Your task to perform on an android device: check battery use Image 0: 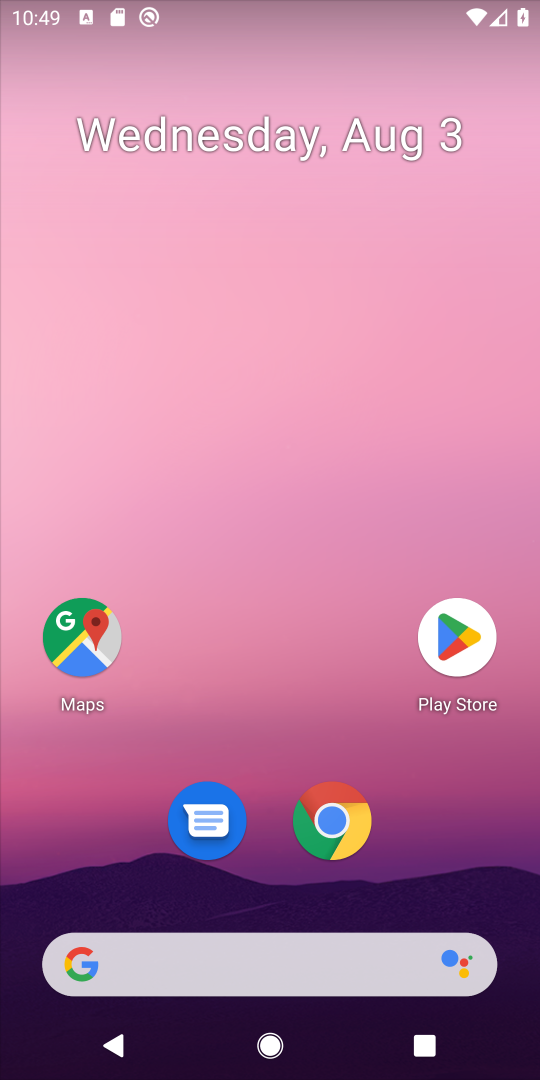
Step 0: drag from (365, 837) to (421, 12)
Your task to perform on an android device: check battery use Image 1: 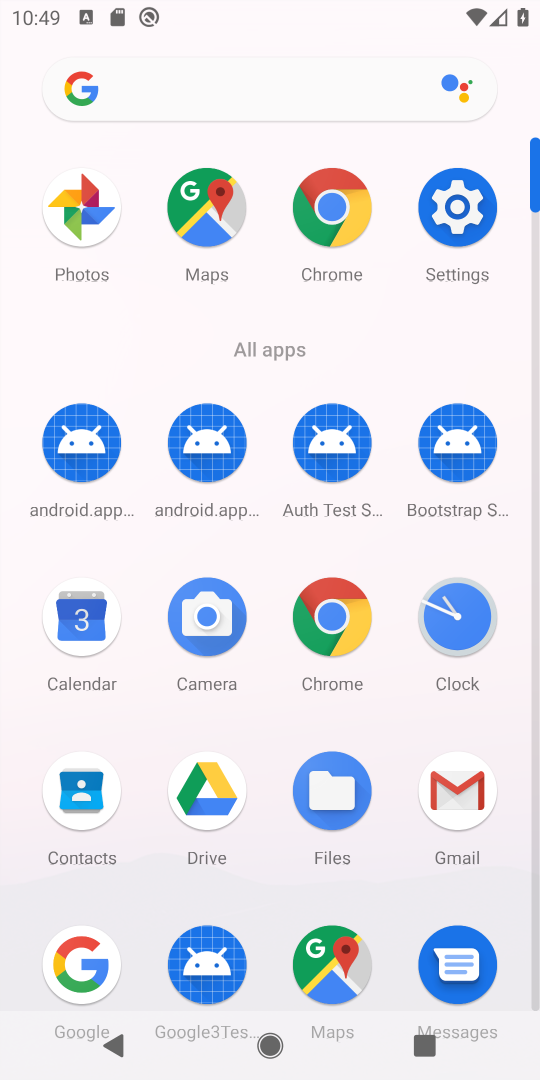
Step 1: click (481, 181)
Your task to perform on an android device: check battery use Image 2: 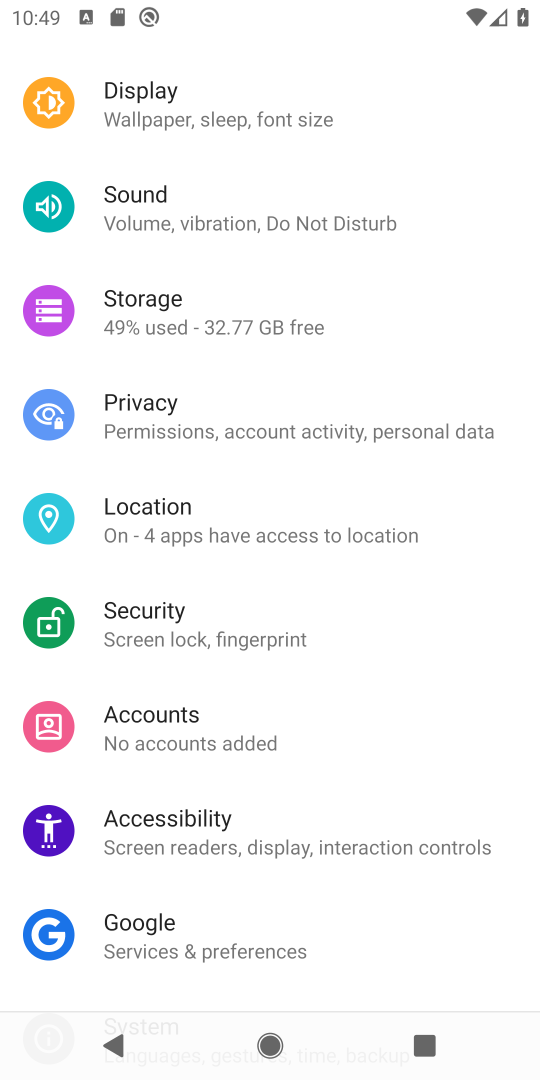
Step 2: drag from (188, 248) to (243, 979)
Your task to perform on an android device: check battery use Image 3: 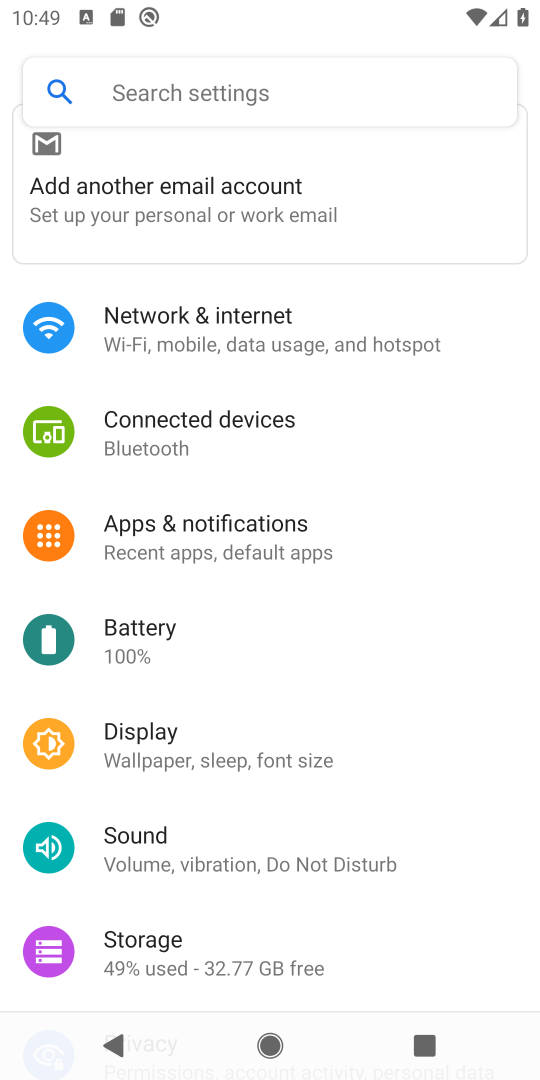
Step 3: click (194, 624)
Your task to perform on an android device: check battery use Image 4: 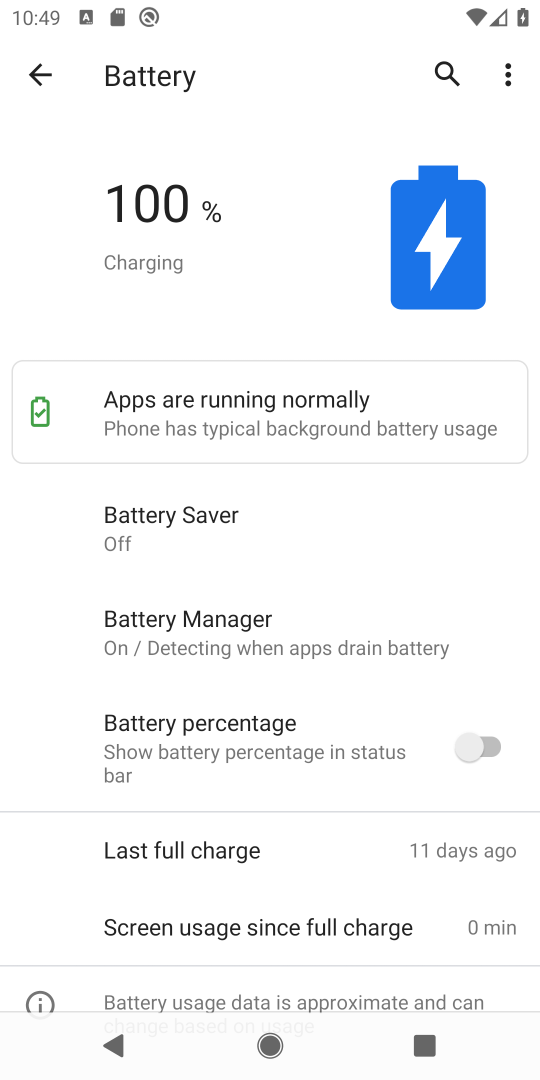
Step 4: task complete